Your task to perform on an android device: Open accessibility settings Image 0: 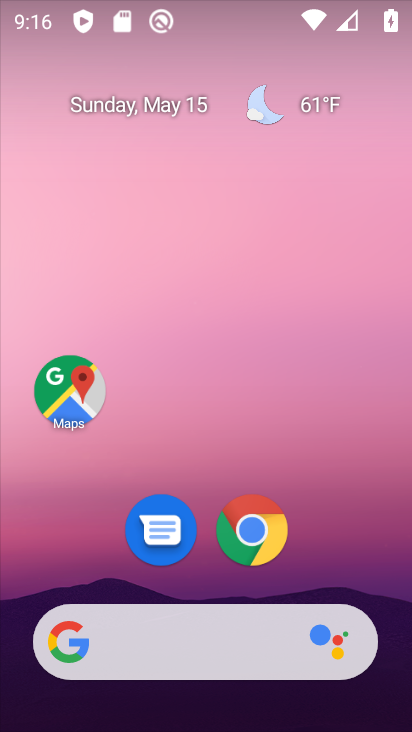
Step 0: drag from (184, 703) to (185, 251)
Your task to perform on an android device: Open accessibility settings Image 1: 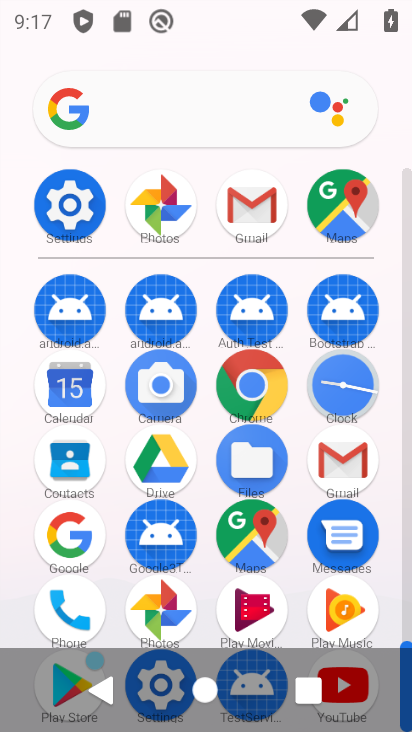
Step 1: click (71, 208)
Your task to perform on an android device: Open accessibility settings Image 2: 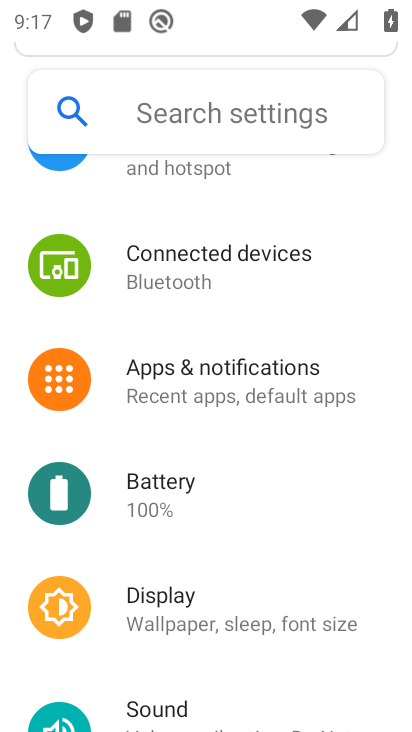
Step 2: drag from (182, 669) to (181, 141)
Your task to perform on an android device: Open accessibility settings Image 3: 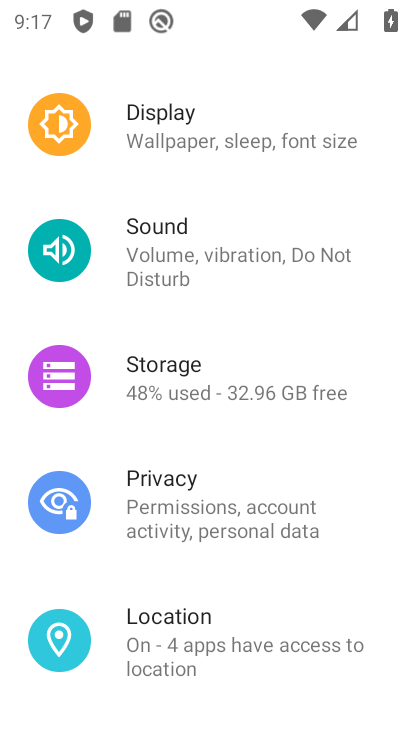
Step 3: drag from (162, 658) to (156, 244)
Your task to perform on an android device: Open accessibility settings Image 4: 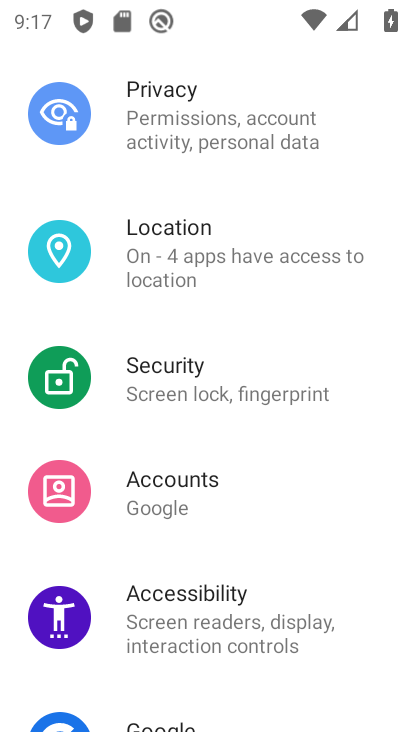
Step 4: click (167, 614)
Your task to perform on an android device: Open accessibility settings Image 5: 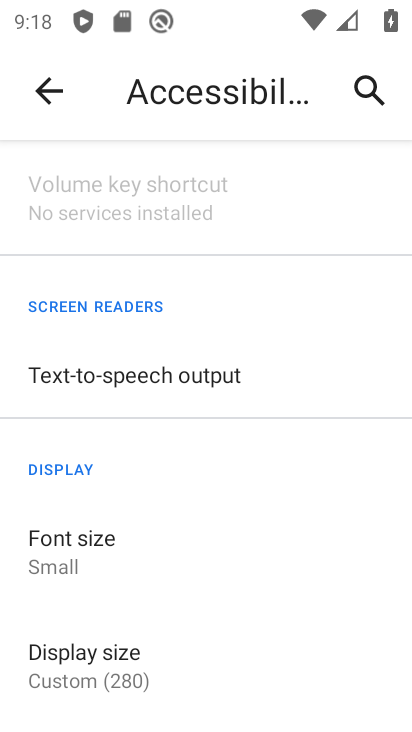
Step 5: task complete